Your task to perform on an android device: refresh tabs in the chrome app Image 0: 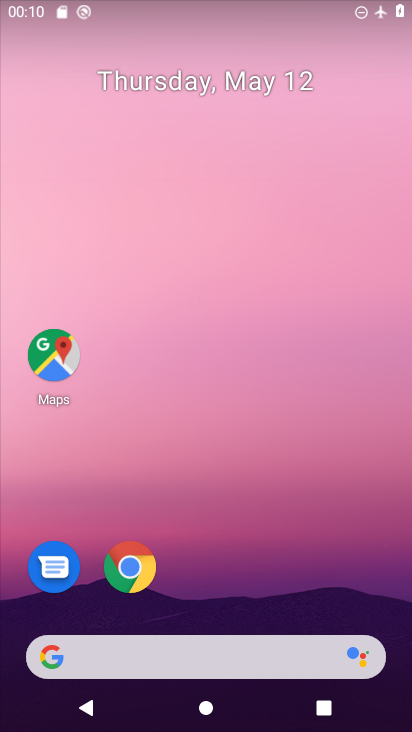
Step 0: click (131, 557)
Your task to perform on an android device: refresh tabs in the chrome app Image 1: 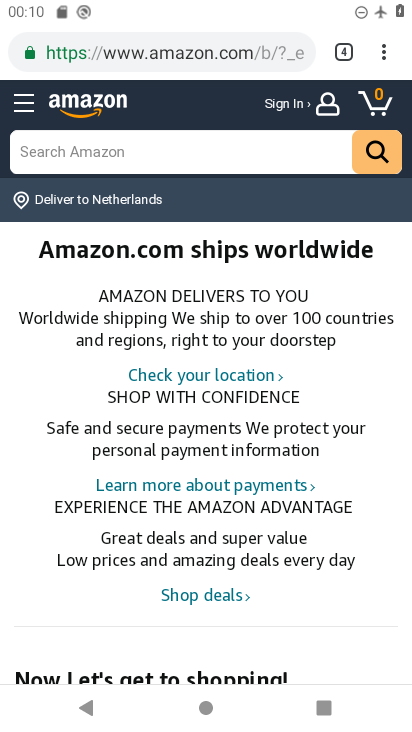
Step 1: click (389, 60)
Your task to perform on an android device: refresh tabs in the chrome app Image 2: 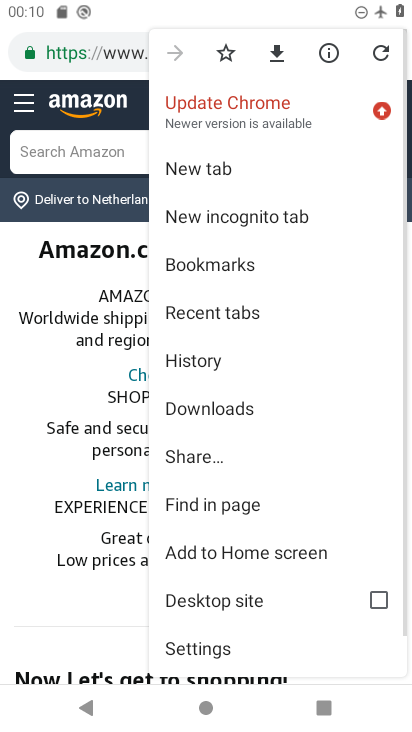
Step 2: click (384, 54)
Your task to perform on an android device: refresh tabs in the chrome app Image 3: 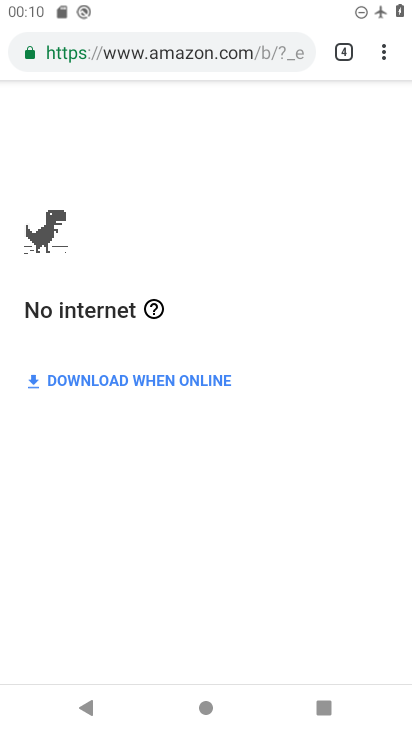
Step 3: task complete